Your task to perform on an android device: change your default location settings in chrome Image 0: 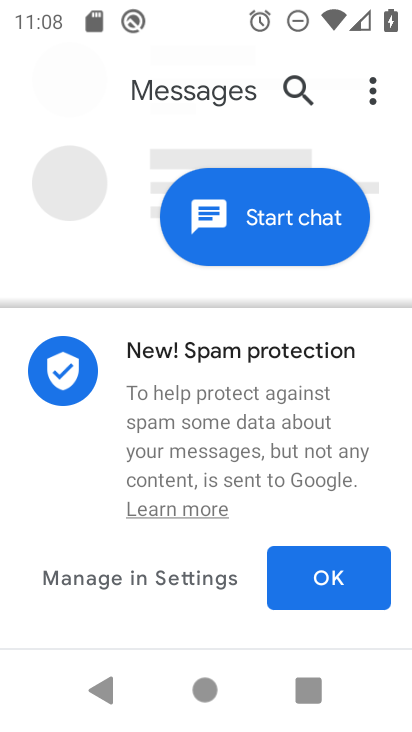
Step 0: press home button
Your task to perform on an android device: change your default location settings in chrome Image 1: 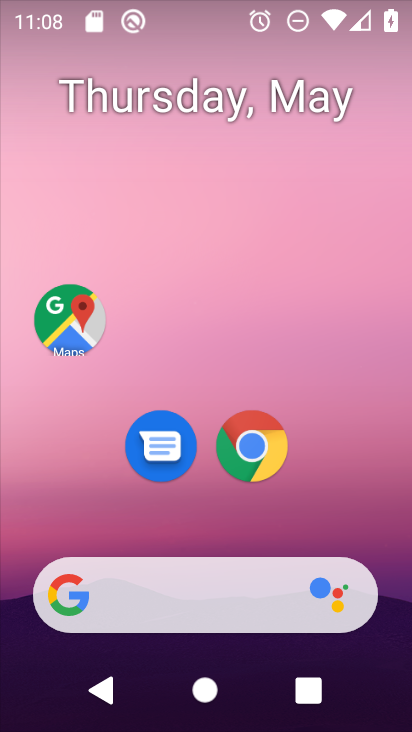
Step 1: drag from (334, 654) to (320, 310)
Your task to perform on an android device: change your default location settings in chrome Image 2: 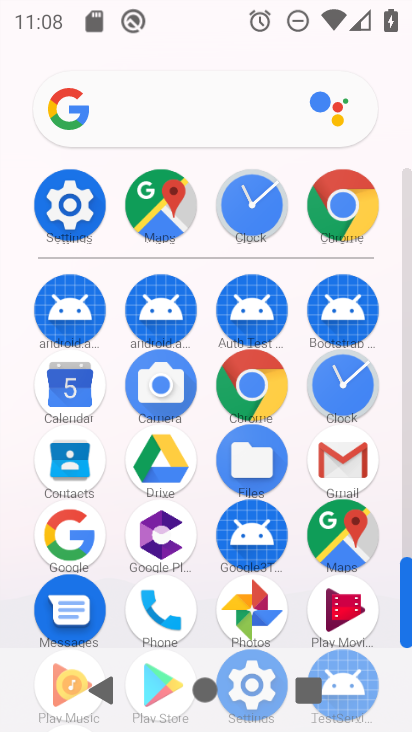
Step 2: click (346, 201)
Your task to perform on an android device: change your default location settings in chrome Image 3: 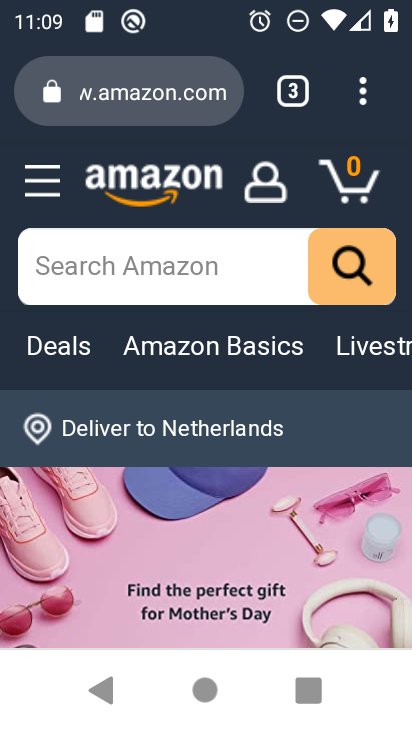
Step 3: click (365, 103)
Your task to perform on an android device: change your default location settings in chrome Image 4: 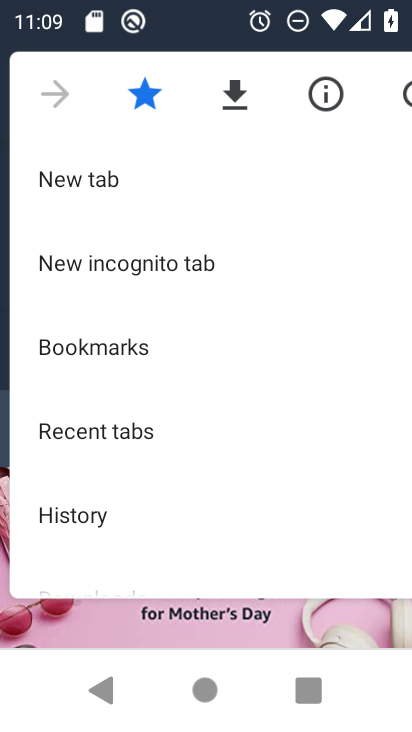
Step 4: drag from (143, 513) to (300, 206)
Your task to perform on an android device: change your default location settings in chrome Image 5: 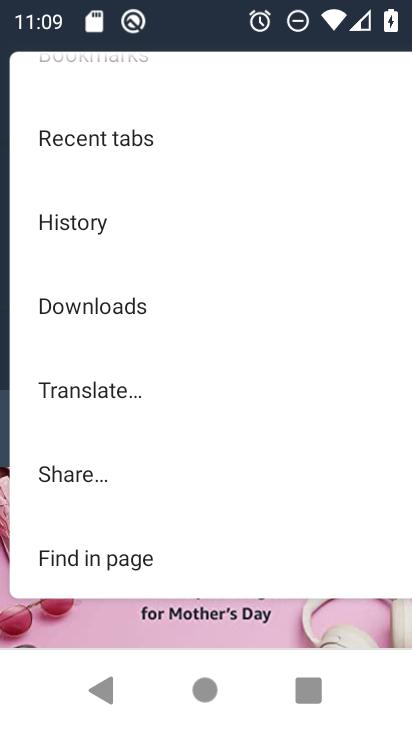
Step 5: drag from (171, 515) to (238, 205)
Your task to perform on an android device: change your default location settings in chrome Image 6: 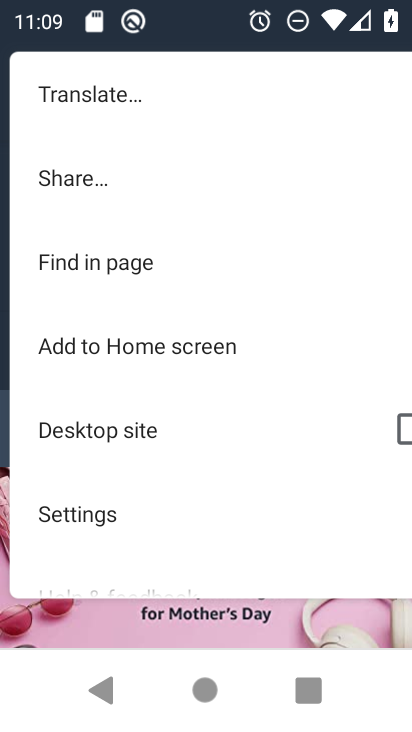
Step 6: click (126, 515)
Your task to perform on an android device: change your default location settings in chrome Image 7: 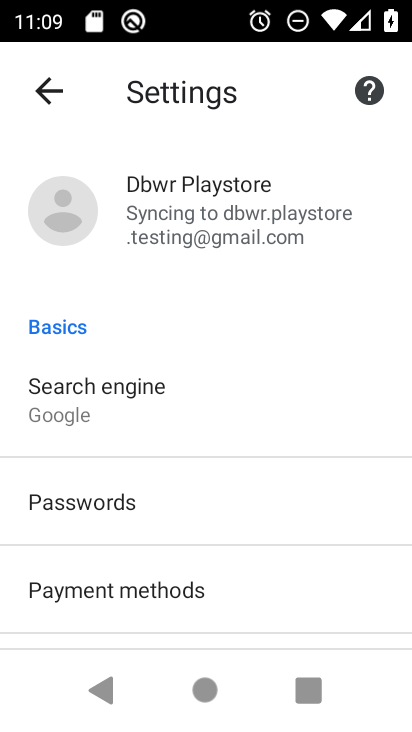
Step 7: drag from (108, 595) to (260, 345)
Your task to perform on an android device: change your default location settings in chrome Image 8: 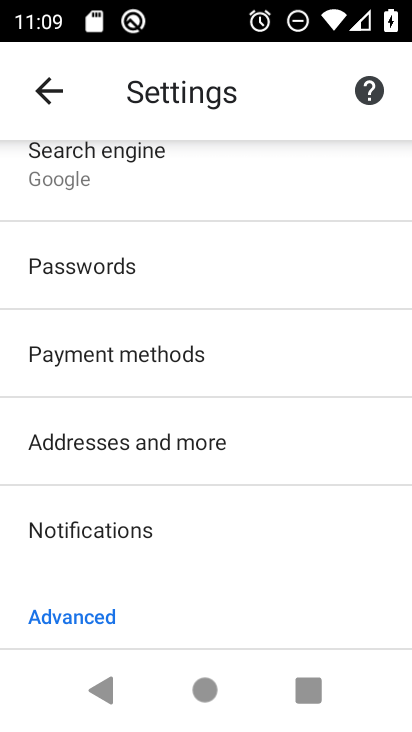
Step 8: drag from (213, 527) to (341, 307)
Your task to perform on an android device: change your default location settings in chrome Image 9: 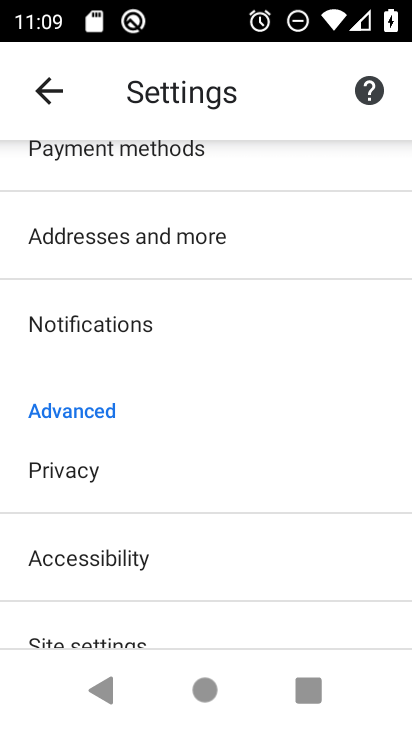
Step 9: drag from (201, 550) to (265, 355)
Your task to perform on an android device: change your default location settings in chrome Image 10: 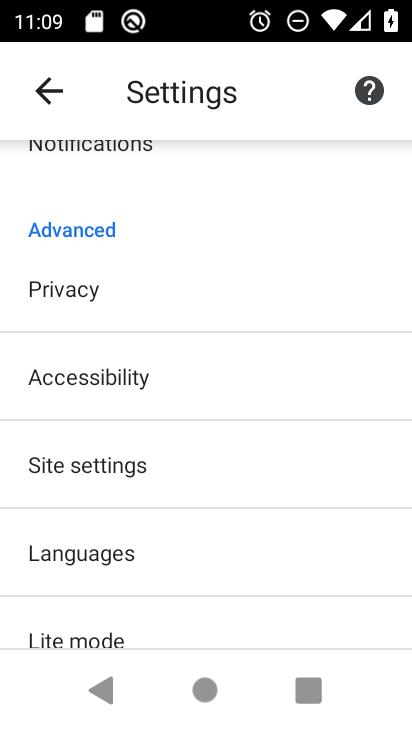
Step 10: click (143, 477)
Your task to perform on an android device: change your default location settings in chrome Image 11: 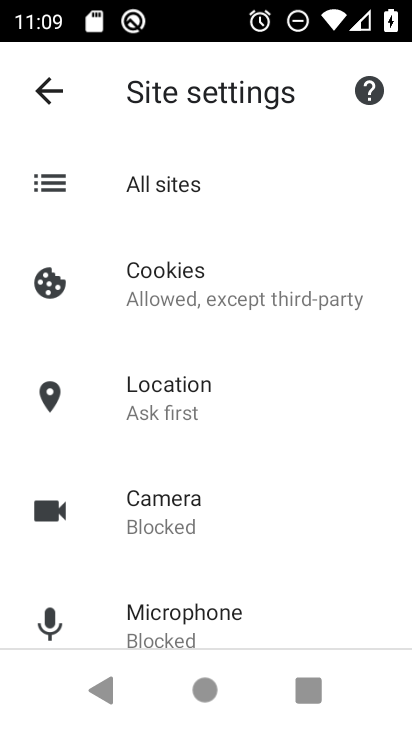
Step 11: click (197, 384)
Your task to perform on an android device: change your default location settings in chrome Image 12: 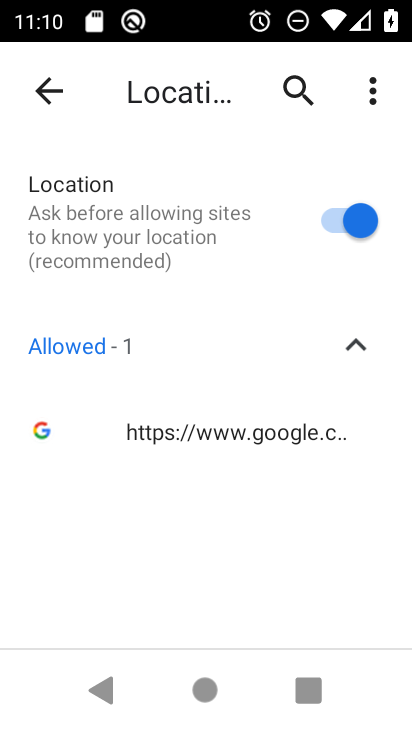
Step 12: click (305, 235)
Your task to perform on an android device: change your default location settings in chrome Image 13: 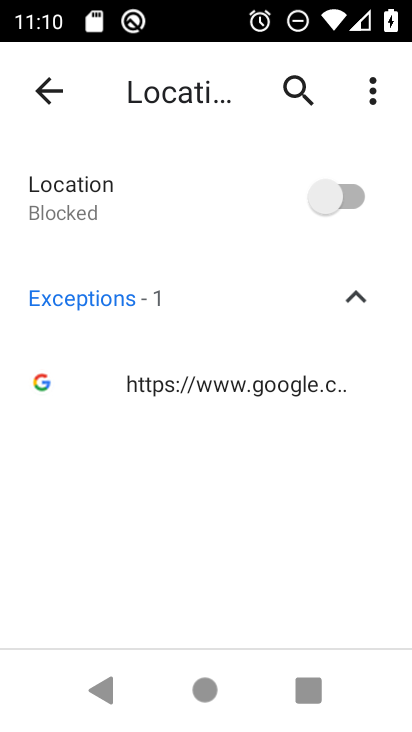
Step 13: task complete